Your task to perform on an android device: Go to Wikipedia Image 0: 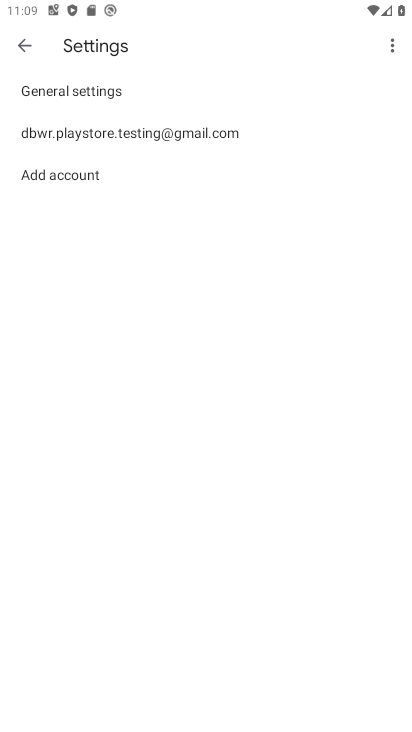
Step 0: press home button
Your task to perform on an android device: Go to Wikipedia Image 1: 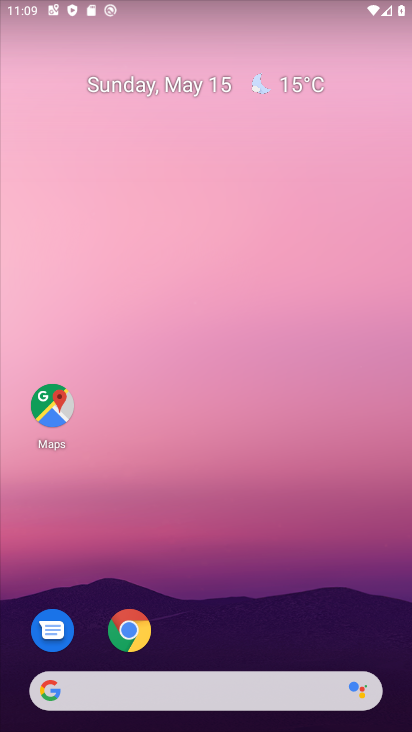
Step 1: drag from (213, 725) to (213, 138)
Your task to perform on an android device: Go to Wikipedia Image 2: 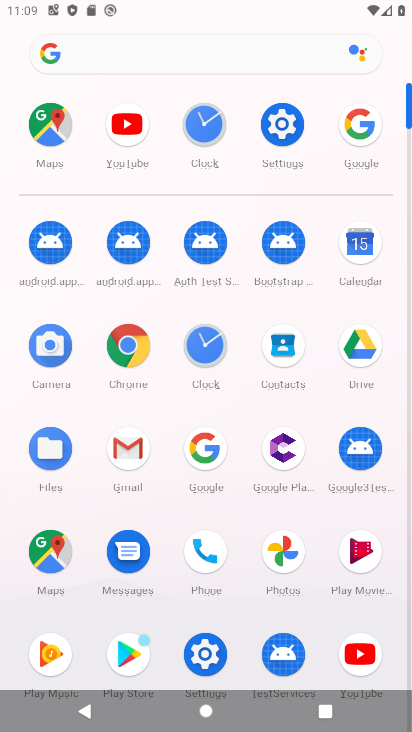
Step 2: click (126, 336)
Your task to perform on an android device: Go to Wikipedia Image 3: 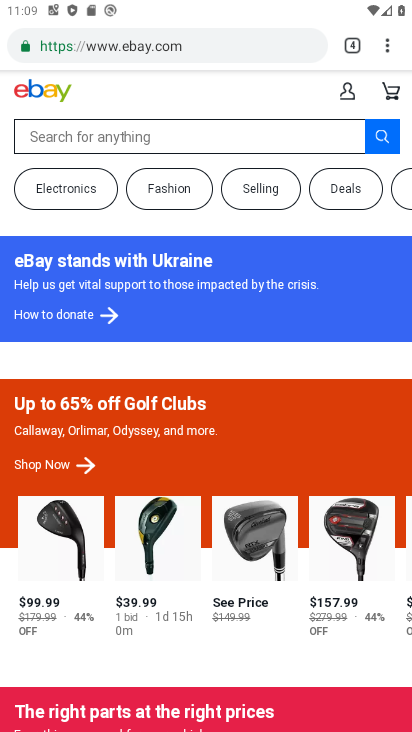
Step 3: click (386, 46)
Your task to perform on an android device: Go to Wikipedia Image 4: 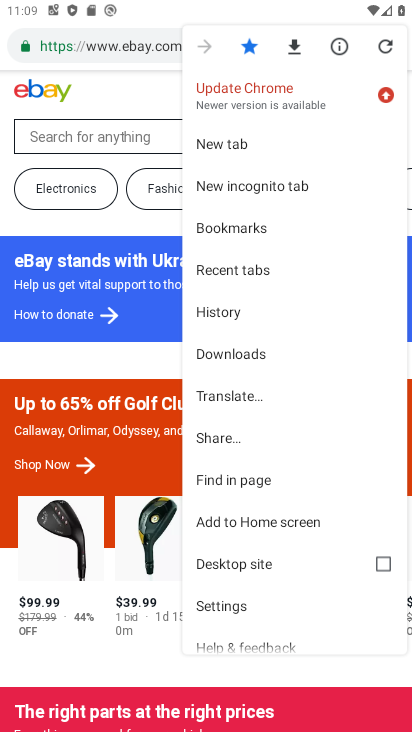
Step 4: click (223, 145)
Your task to perform on an android device: Go to Wikipedia Image 5: 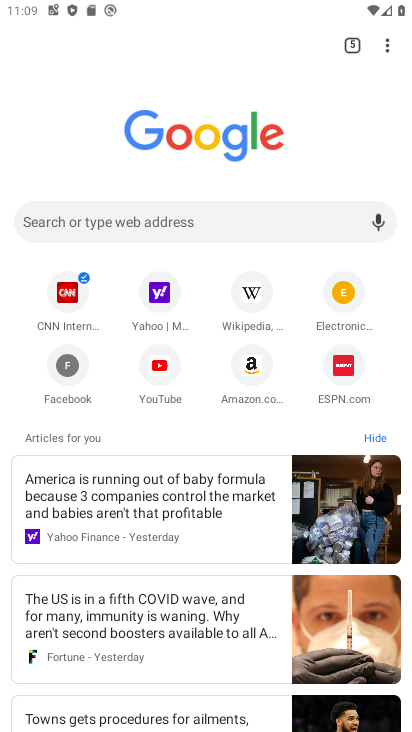
Step 5: click (247, 295)
Your task to perform on an android device: Go to Wikipedia Image 6: 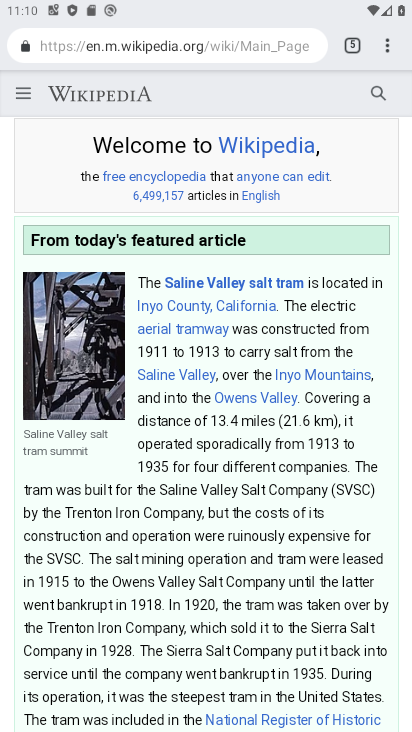
Step 6: task complete